Your task to perform on an android device: check google app version Image 0: 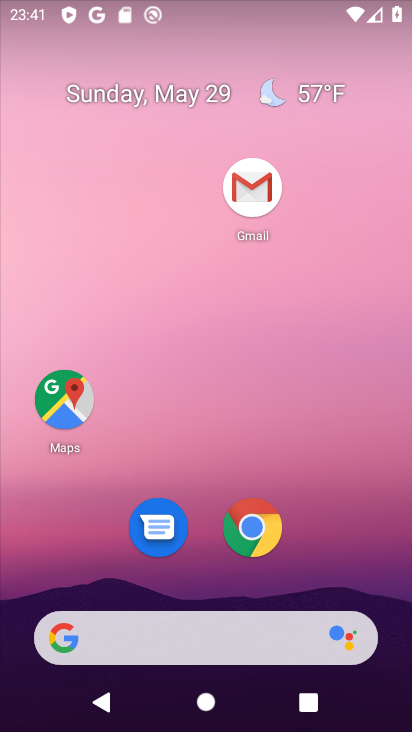
Step 0: drag from (338, 576) to (259, 158)
Your task to perform on an android device: check google app version Image 1: 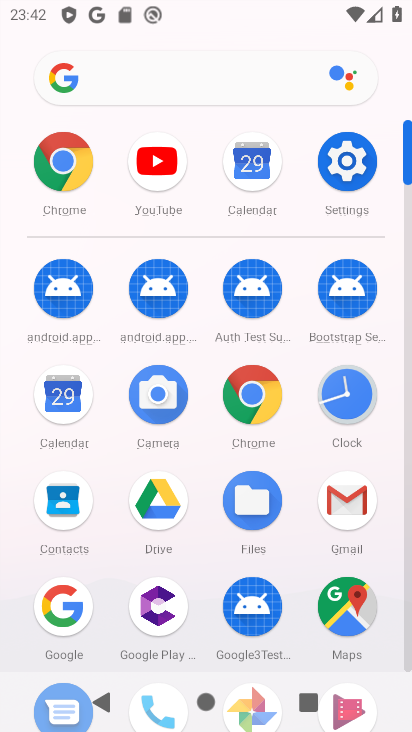
Step 1: click (61, 609)
Your task to perform on an android device: check google app version Image 2: 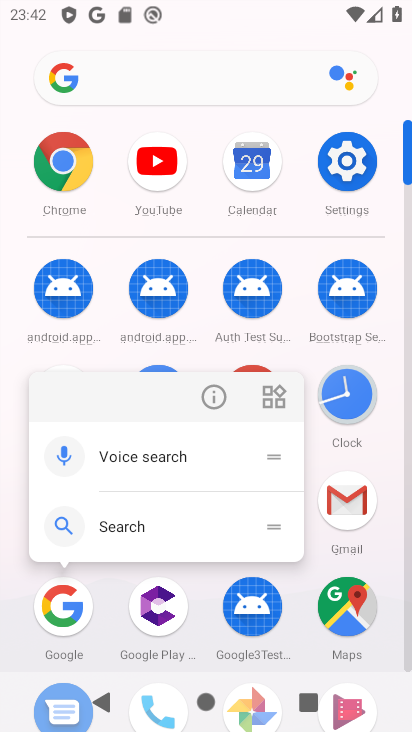
Step 2: click (211, 400)
Your task to perform on an android device: check google app version Image 3: 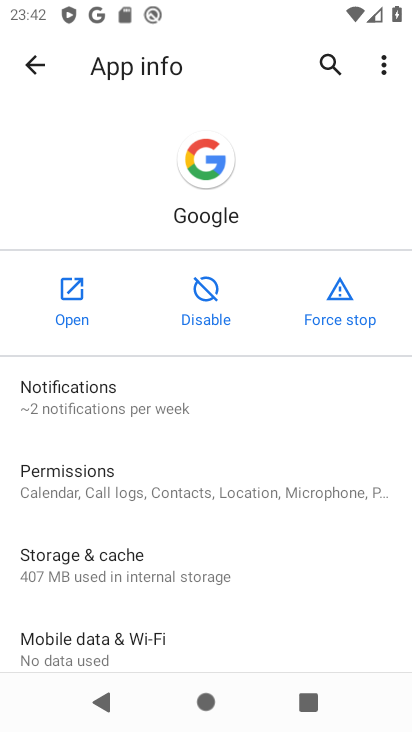
Step 3: drag from (168, 444) to (292, 272)
Your task to perform on an android device: check google app version Image 4: 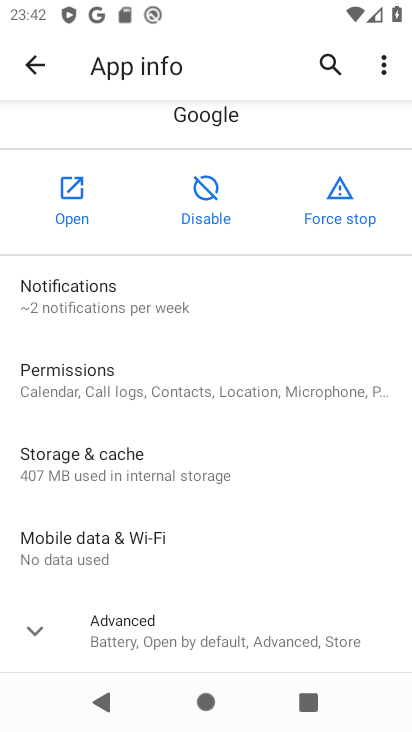
Step 4: drag from (174, 519) to (226, 359)
Your task to perform on an android device: check google app version Image 5: 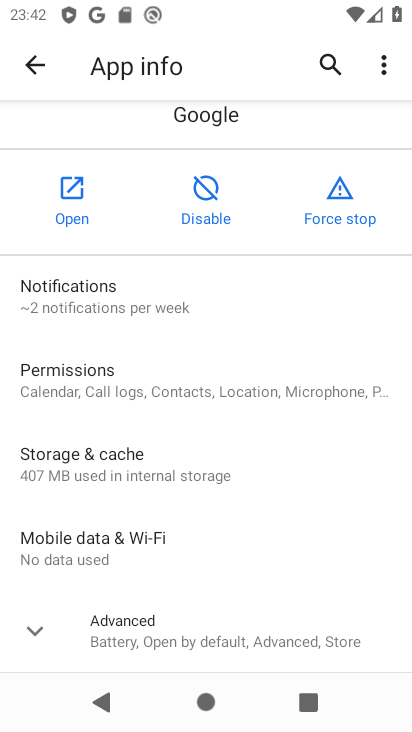
Step 5: click (249, 639)
Your task to perform on an android device: check google app version Image 6: 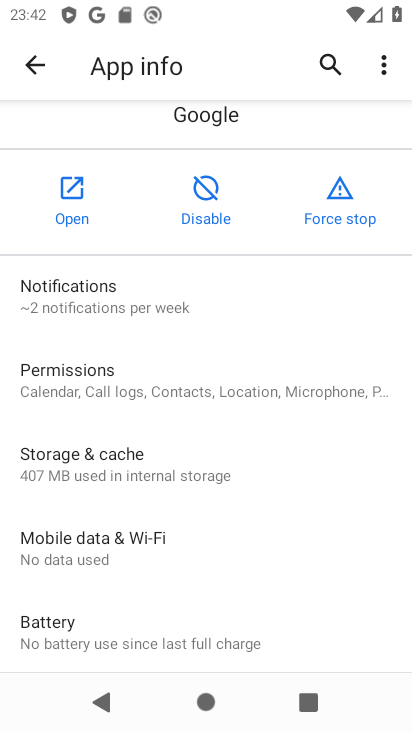
Step 6: task complete